Your task to perform on an android device: Check the news Image 0: 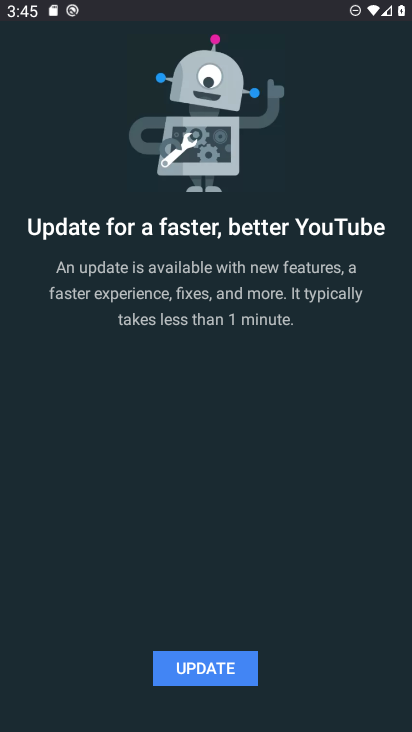
Step 0: press back button
Your task to perform on an android device: Check the news Image 1: 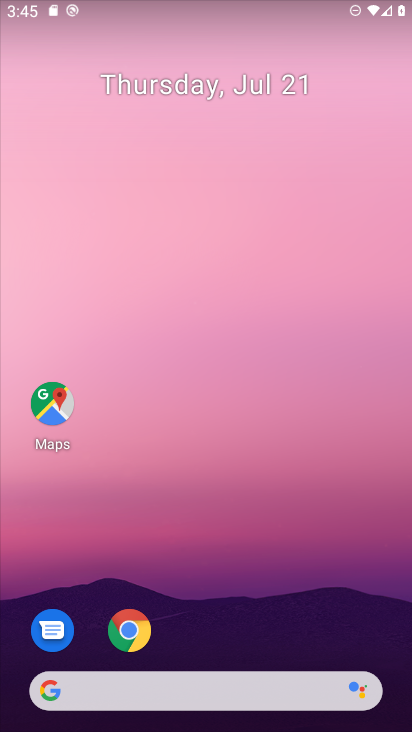
Step 1: click (246, 689)
Your task to perform on an android device: Check the news Image 2: 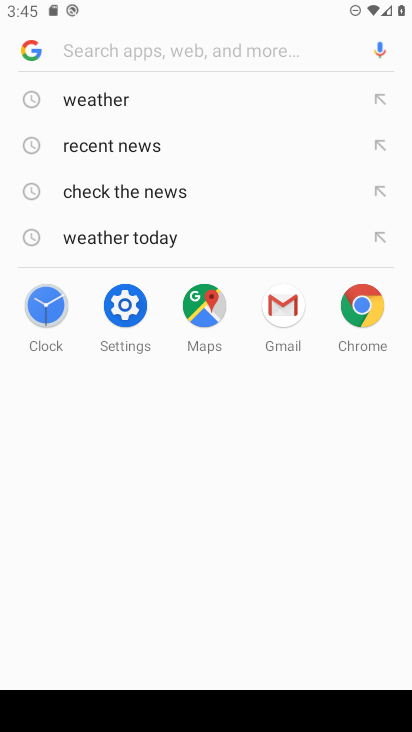
Step 2: click (120, 138)
Your task to perform on an android device: Check the news Image 3: 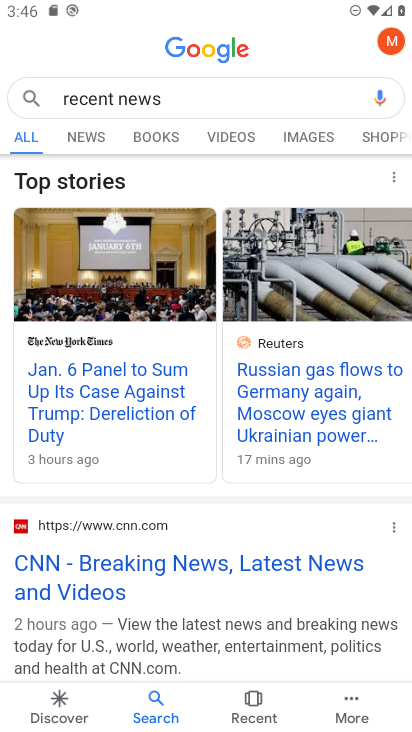
Step 3: task complete